Your task to perform on an android device: open the mobile data screen to see how much data has been used Image 0: 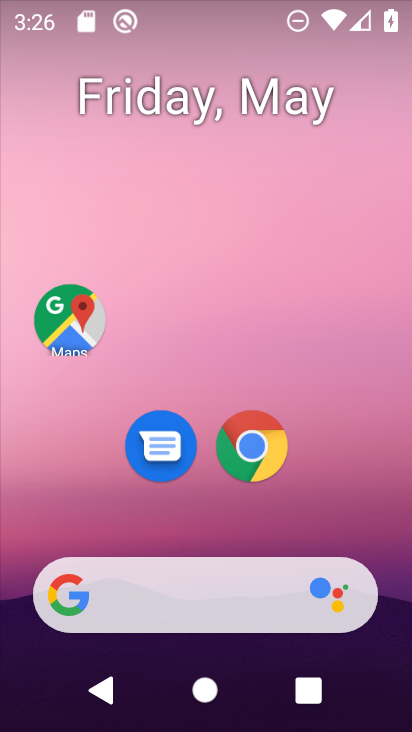
Step 0: drag from (334, 1) to (325, 466)
Your task to perform on an android device: open the mobile data screen to see how much data has been used Image 1: 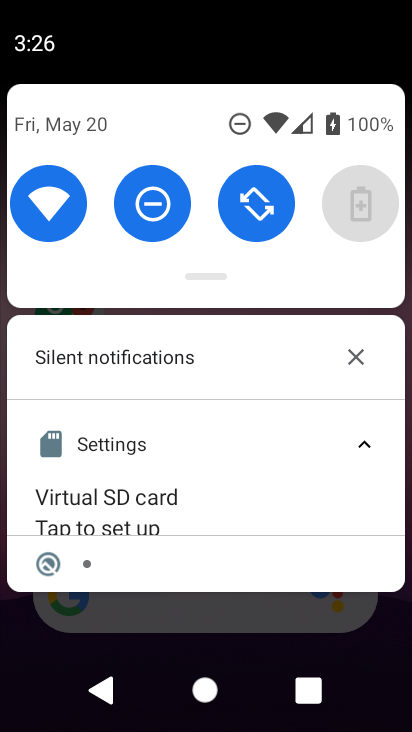
Step 1: task complete